Your task to perform on an android device: Open calendar and show me the fourth week of next month Image 0: 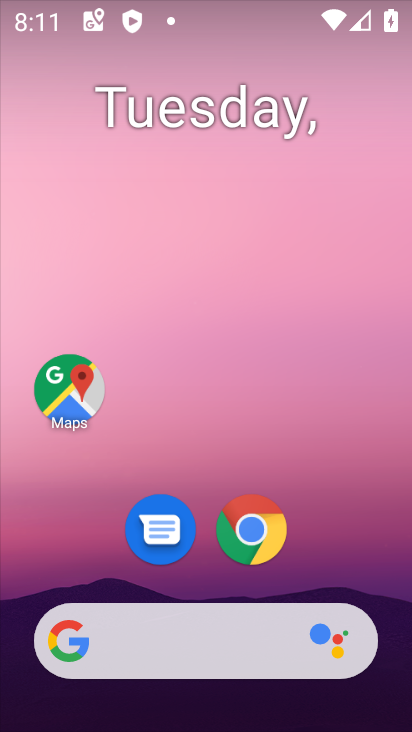
Step 0: drag from (294, 585) to (313, 19)
Your task to perform on an android device: Open calendar and show me the fourth week of next month Image 1: 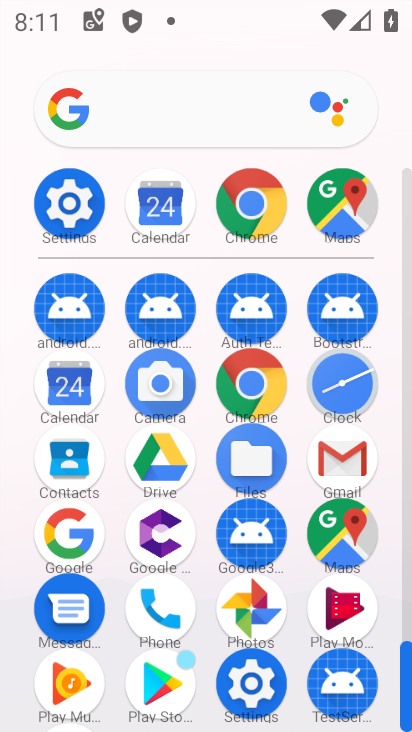
Step 1: click (75, 397)
Your task to perform on an android device: Open calendar and show me the fourth week of next month Image 2: 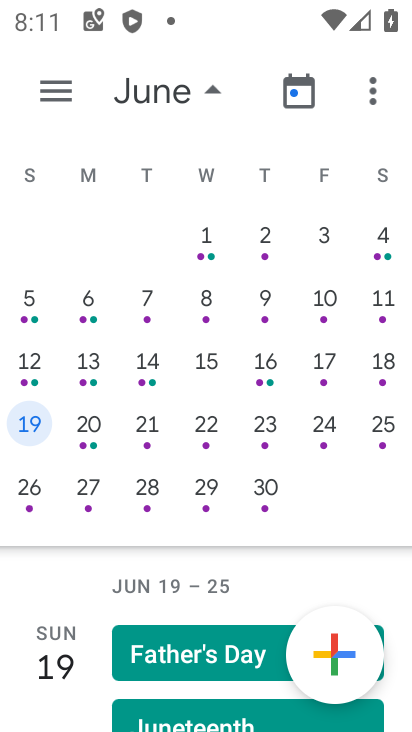
Step 2: task complete